Your task to perform on an android device: Show me popular videos on Youtube Image 0: 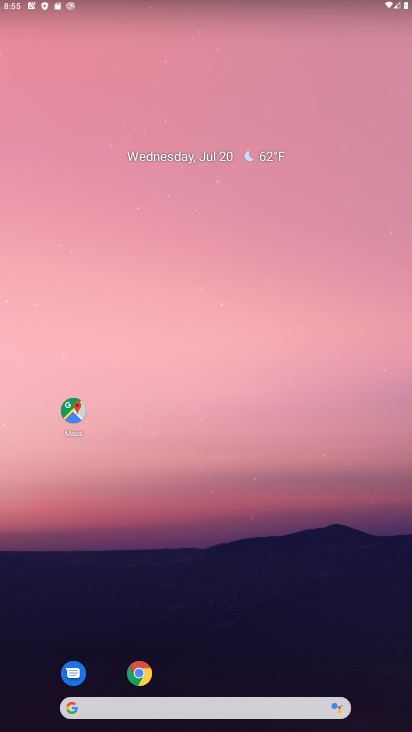
Step 0: drag from (395, 706) to (307, 42)
Your task to perform on an android device: Show me popular videos on Youtube Image 1: 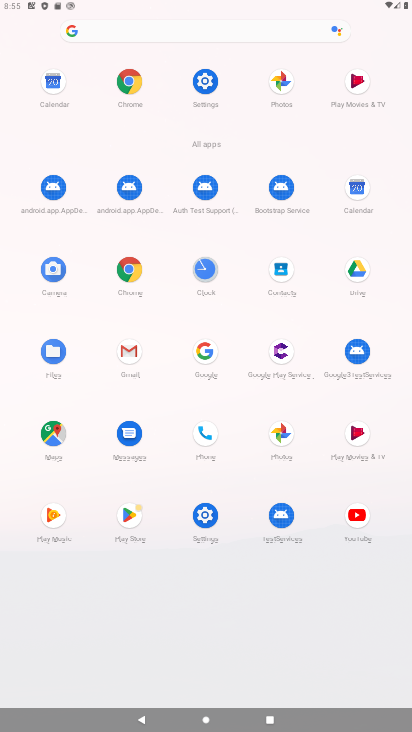
Step 1: click (361, 508)
Your task to perform on an android device: Show me popular videos on Youtube Image 2: 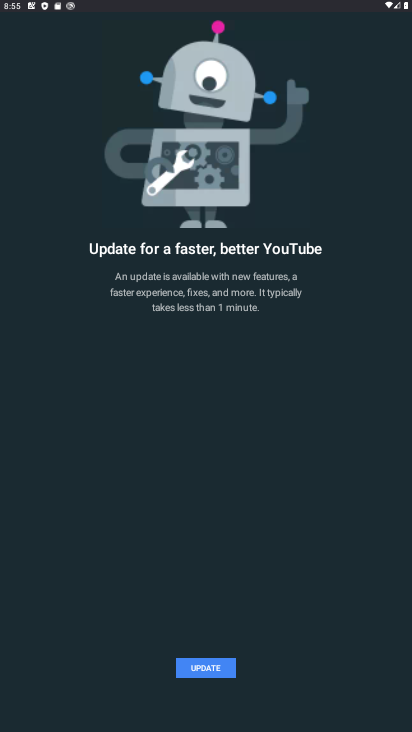
Step 2: click (211, 675)
Your task to perform on an android device: Show me popular videos on Youtube Image 3: 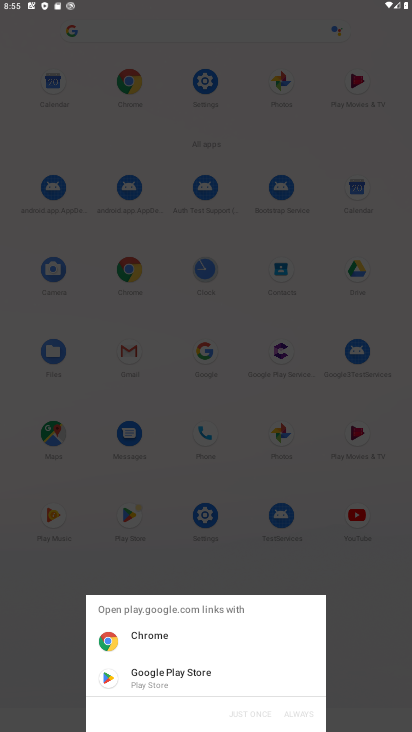
Step 3: click (135, 676)
Your task to perform on an android device: Show me popular videos on Youtube Image 4: 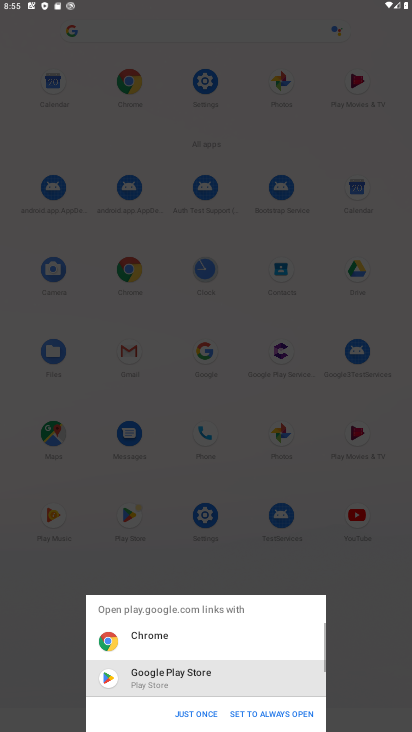
Step 4: click (206, 711)
Your task to perform on an android device: Show me popular videos on Youtube Image 5: 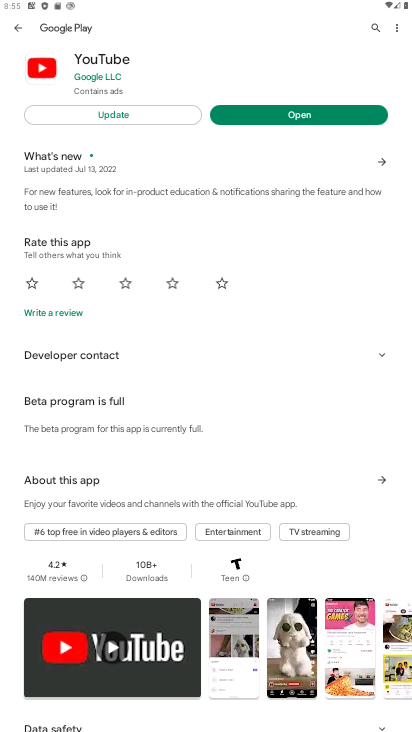
Step 5: click (100, 119)
Your task to perform on an android device: Show me popular videos on Youtube Image 6: 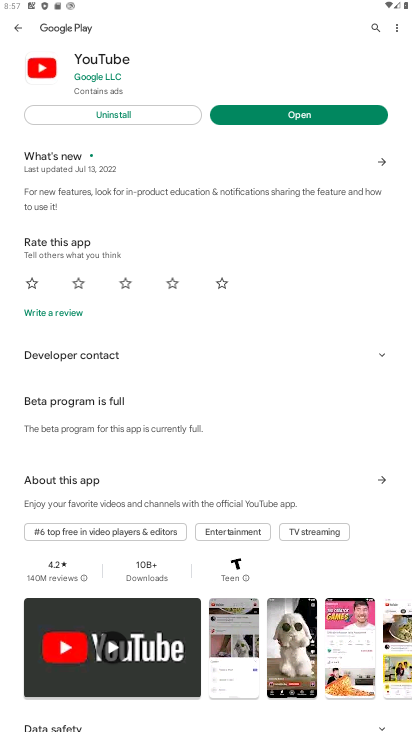
Step 6: click (228, 109)
Your task to perform on an android device: Show me popular videos on Youtube Image 7: 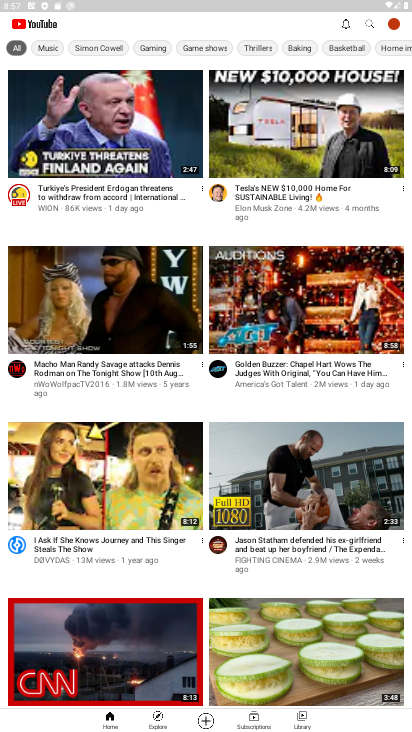
Step 7: click (371, 21)
Your task to perform on an android device: Show me popular videos on Youtube Image 8: 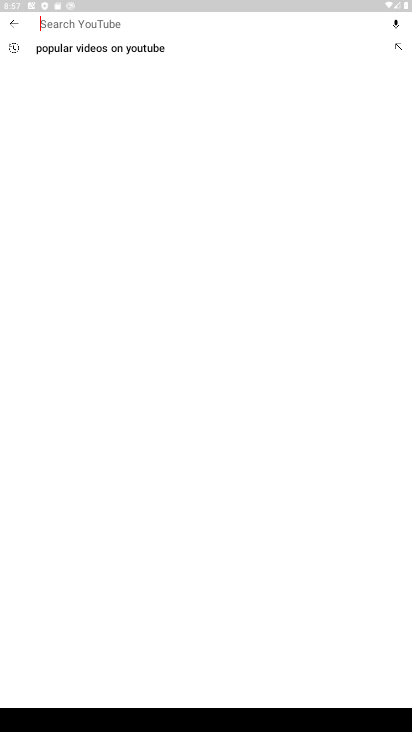
Step 8: type "popular videos on Youtube"
Your task to perform on an android device: Show me popular videos on Youtube Image 9: 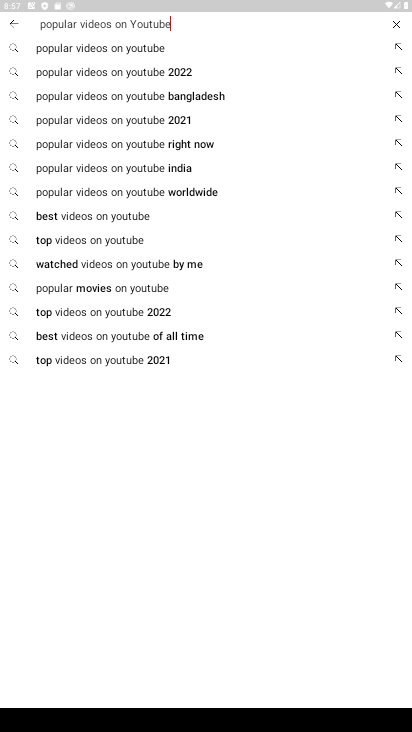
Step 9: click (109, 42)
Your task to perform on an android device: Show me popular videos on Youtube Image 10: 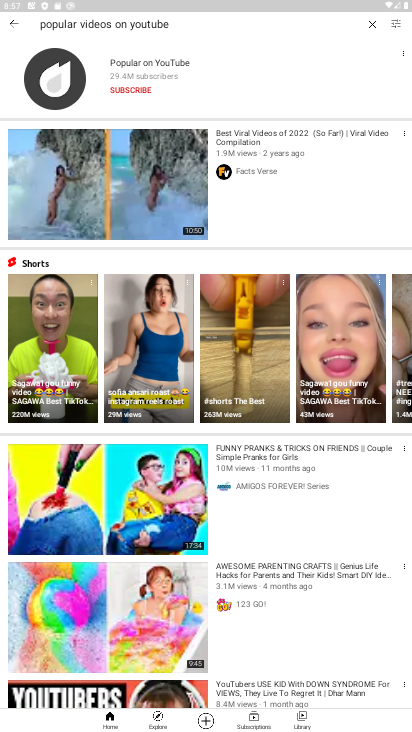
Step 10: task complete